Your task to perform on an android device: create a new album in the google photos Image 0: 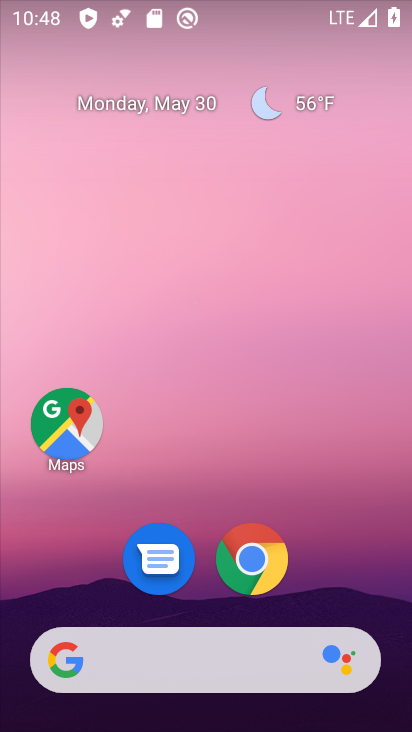
Step 0: drag from (357, 600) to (251, 226)
Your task to perform on an android device: create a new album in the google photos Image 1: 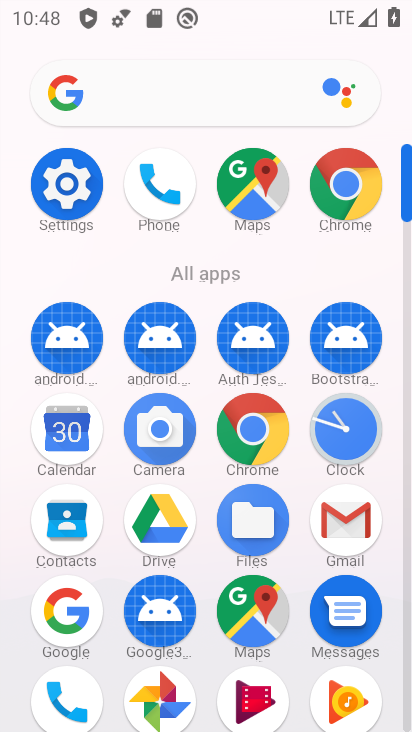
Step 1: click (408, 626)
Your task to perform on an android device: create a new album in the google photos Image 2: 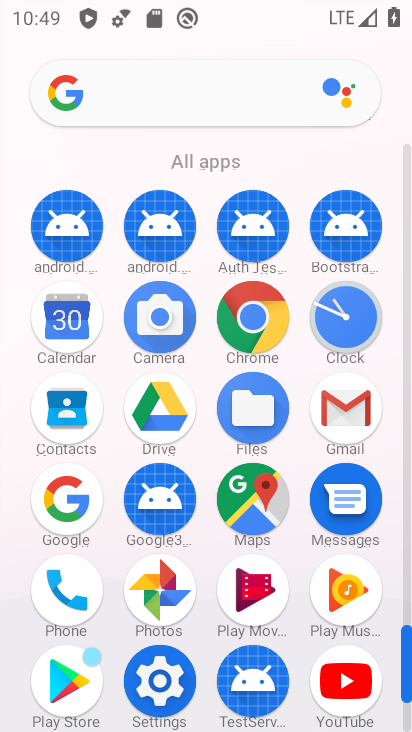
Step 2: click (154, 583)
Your task to perform on an android device: create a new album in the google photos Image 3: 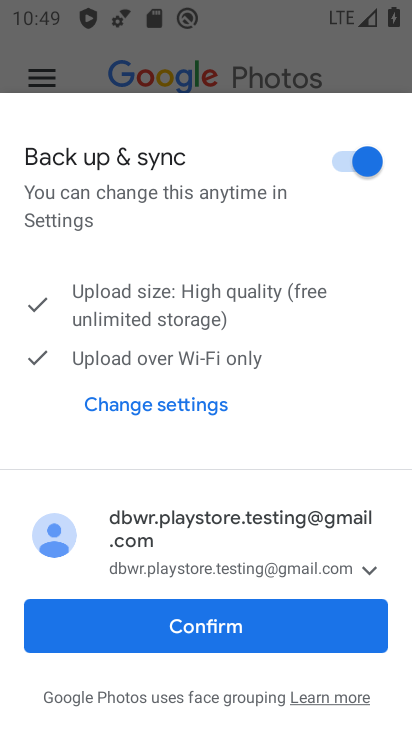
Step 3: click (182, 617)
Your task to perform on an android device: create a new album in the google photos Image 4: 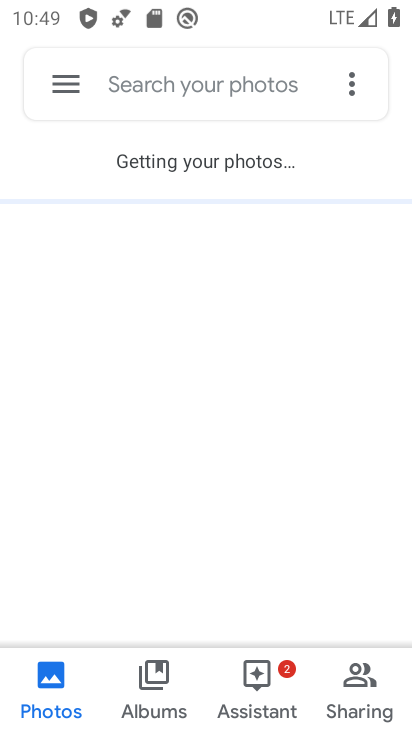
Step 4: click (252, 676)
Your task to perform on an android device: create a new album in the google photos Image 5: 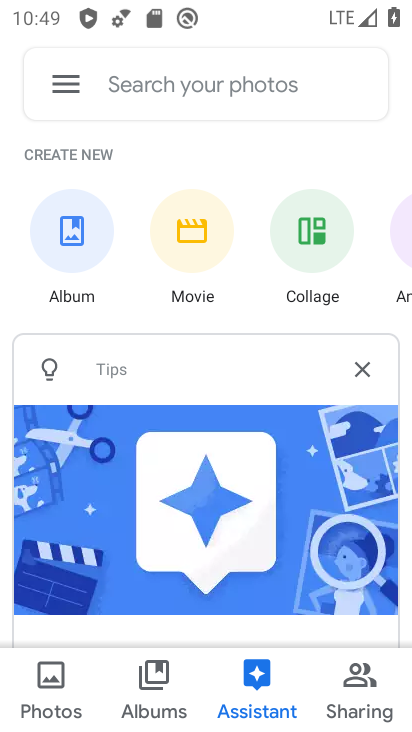
Step 5: click (79, 255)
Your task to perform on an android device: create a new album in the google photos Image 6: 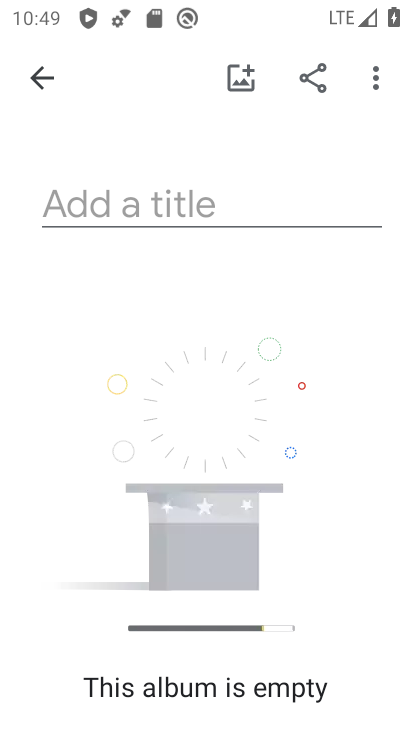
Step 6: click (130, 193)
Your task to perform on an android device: create a new album in the google photos Image 7: 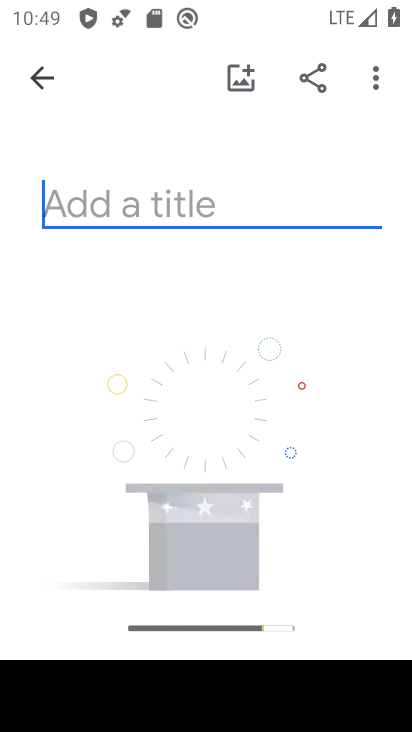
Step 7: type "ndlnsl"
Your task to perform on an android device: create a new album in the google photos Image 8: 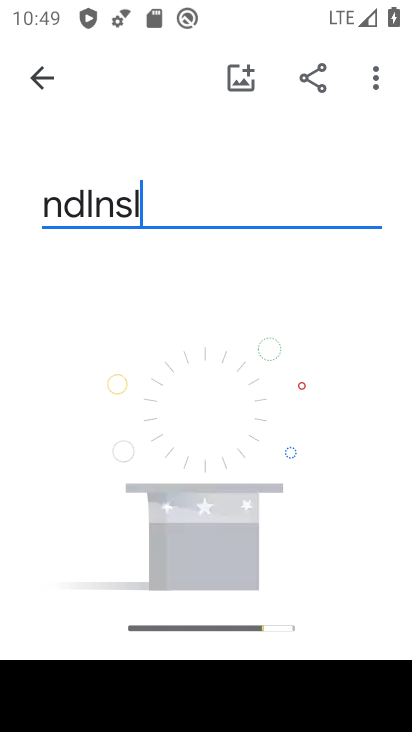
Step 8: click (235, 82)
Your task to perform on an android device: create a new album in the google photos Image 9: 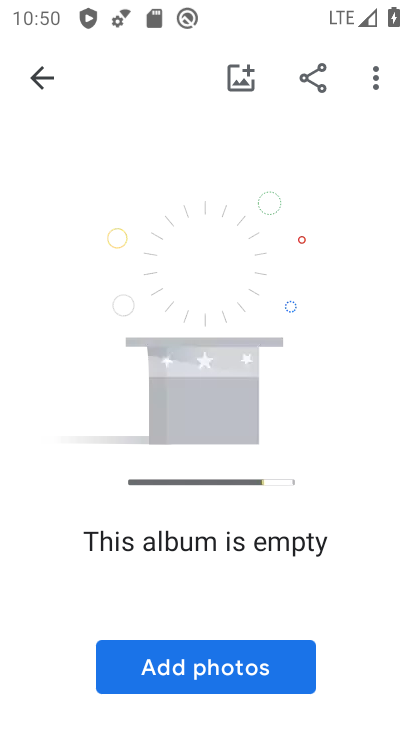
Step 9: click (166, 658)
Your task to perform on an android device: create a new album in the google photos Image 10: 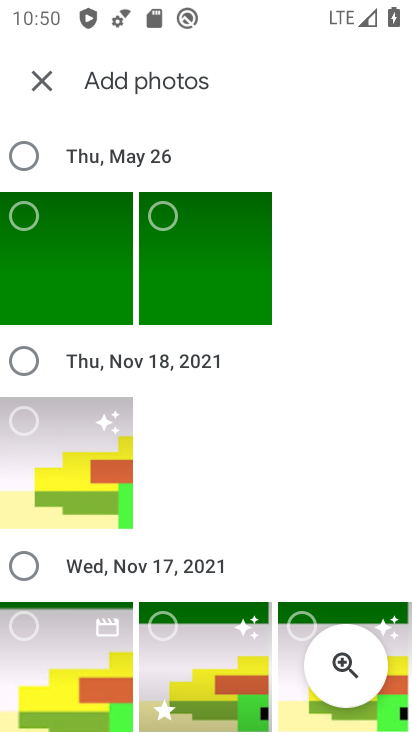
Step 10: click (115, 428)
Your task to perform on an android device: create a new album in the google photos Image 11: 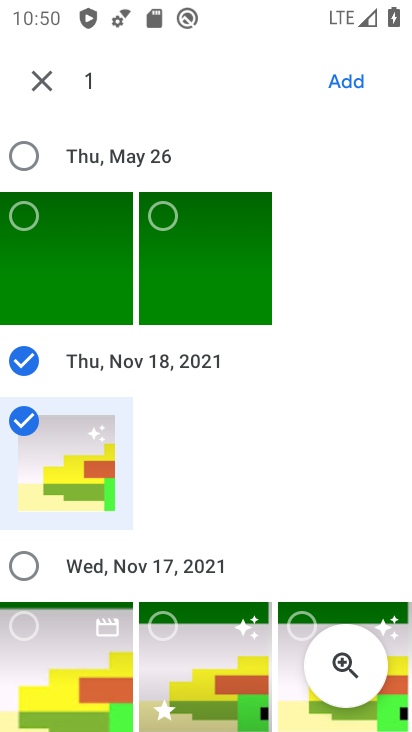
Step 11: click (345, 81)
Your task to perform on an android device: create a new album in the google photos Image 12: 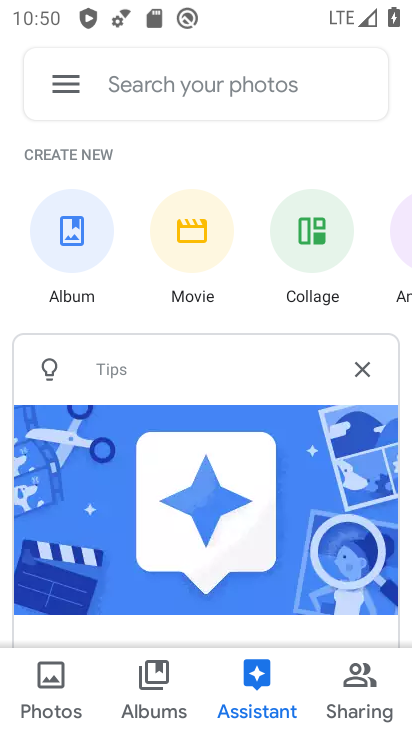
Step 12: task complete